Your task to perform on an android device: Open Google Chrome Image 0: 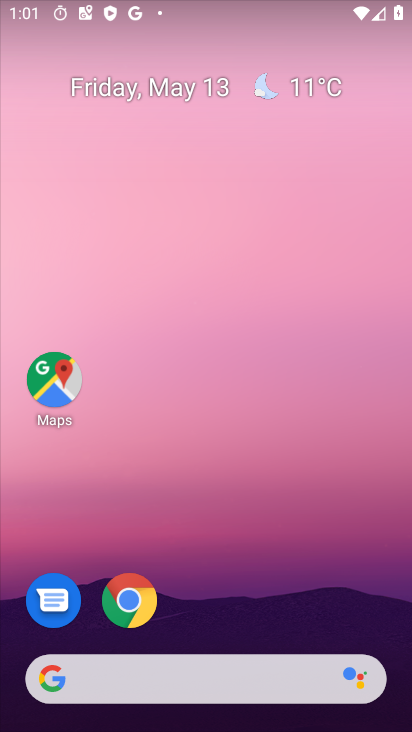
Step 0: drag from (210, 610) to (171, 182)
Your task to perform on an android device: Open Google Chrome Image 1: 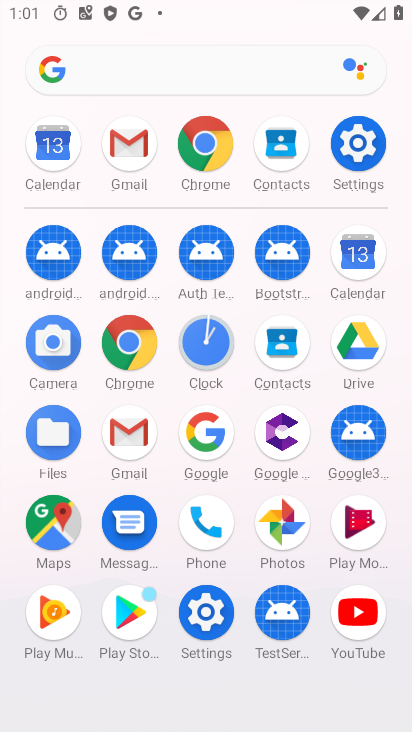
Step 1: click (140, 348)
Your task to perform on an android device: Open Google Chrome Image 2: 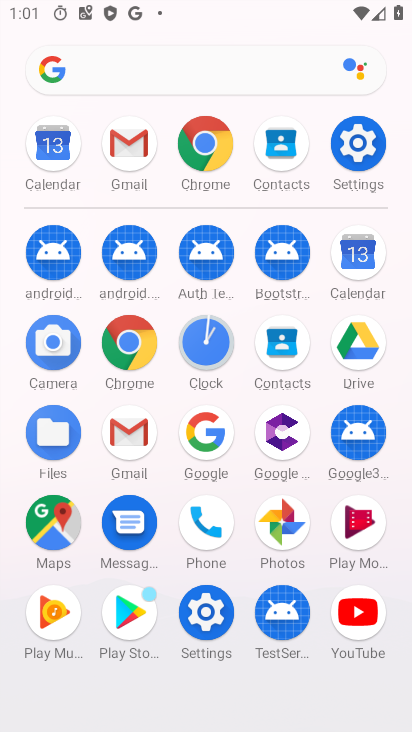
Step 2: click (140, 348)
Your task to perform on an android device: Open Google Chrome Image 3: 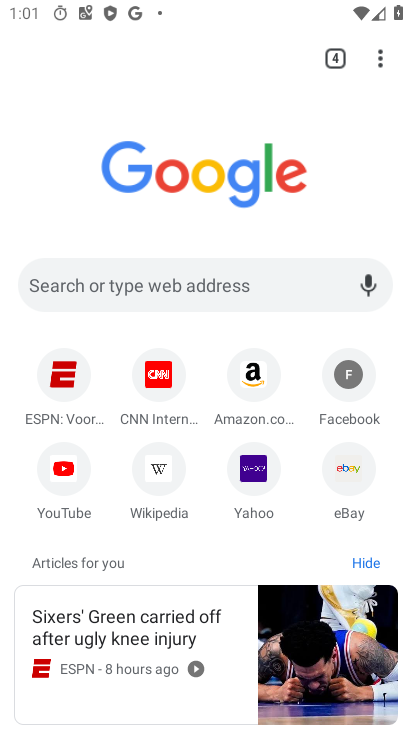
Step 3: task complete